Your task to perform on an android device: Open Android settings Image 0: 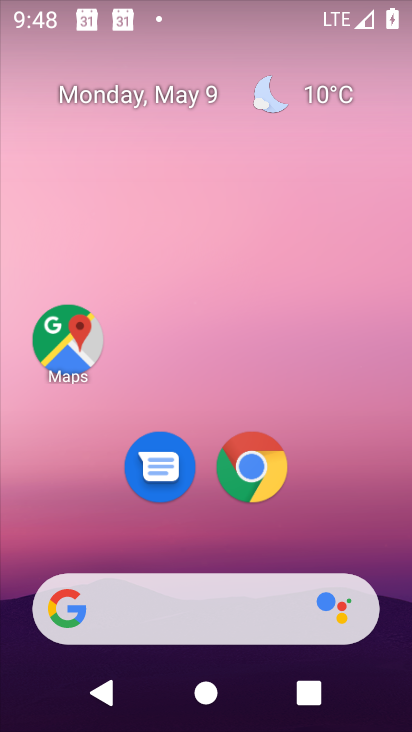
Step 0: drag from (364, 553) to (336, 6)
Your task to perform on an android device: Open Android settings Image 1: 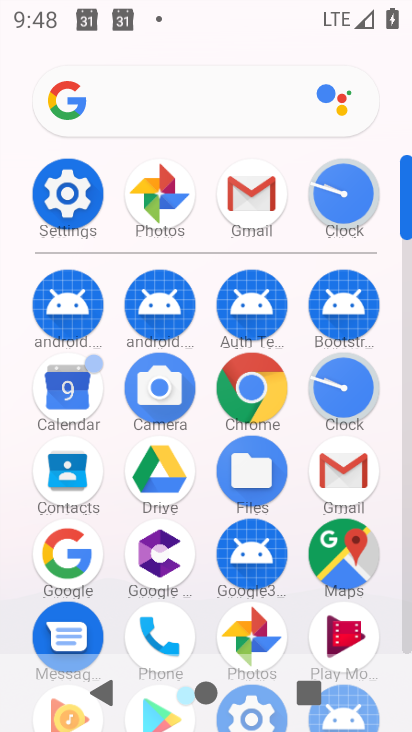
Step 1: click (36, 212)
Your task to perform on an android device: Open Android settings Image 2: 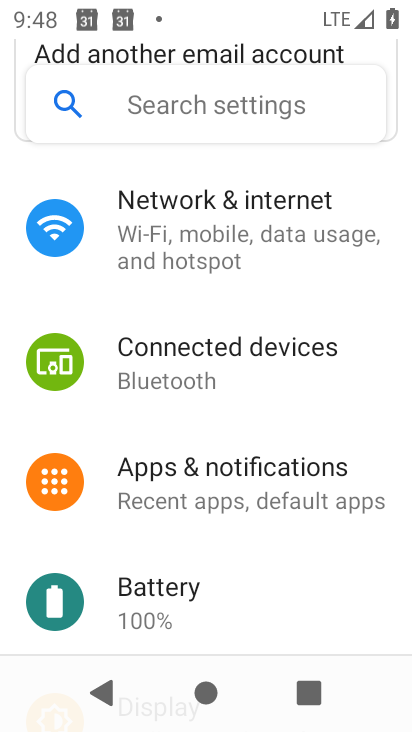
Step 2: task complete